Your task to perform on an android device: Add corsair k70 to the cart on walmart.com Image 0: 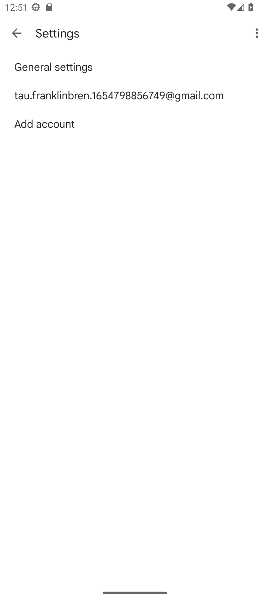
Step 0: press home button
Your task to perform on an android device: Add corsair k70 to the cart on walmart.com Image 1: 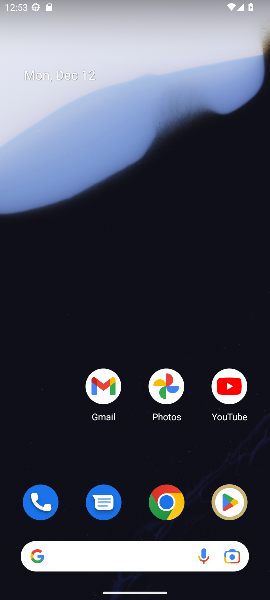
Step 1: click (181, 519)
Your task to perform on an android device: Add corsair k70 to the cart on walmart.com Image 2: 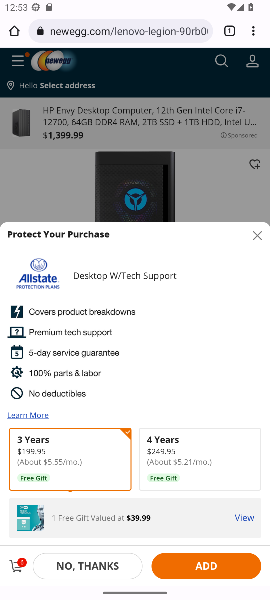
Step 2: click (98, 29)
Your task to perform on an android device: Add corsair k70 to the cart on walmart.com Image 3: 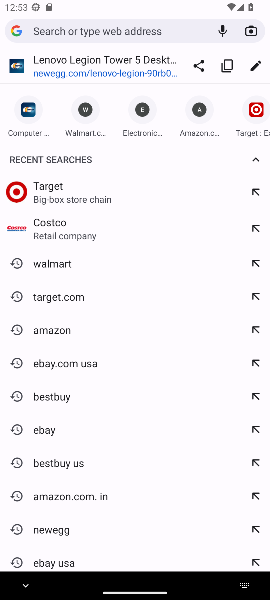
Step 3: type "walmart"
Your task to perform on an android device: Add corsair k70 to the cart on walmart.com Image 4: 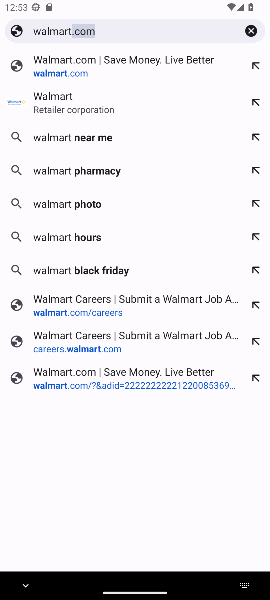
Step 4: click (70, 78)
Your task to perform on an android device: Add corsair k70 to the cart on walmart.com Image 5: 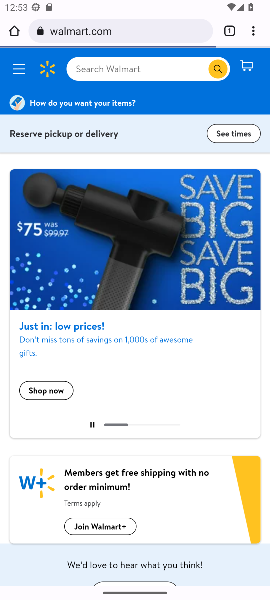
Step 5: click (123, 69)
Your task to perform on an android device: Add corsair k70 to the cart on walmart.com Image 6: 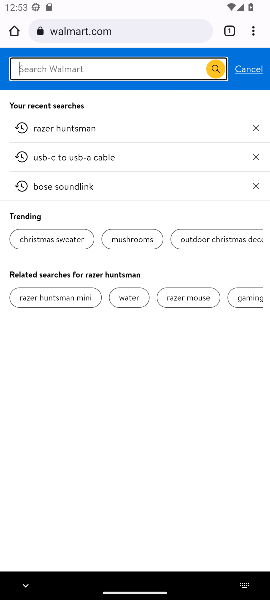
Step 6: type "corsair k70"
Your task to perform on an android device: Add corsair k70 to the cart on walmart.com Image 7: 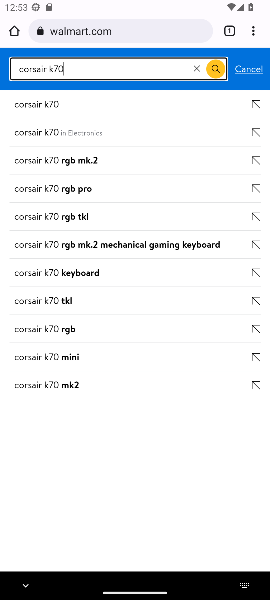
Step 7: click (64, 111)
Your task to perform on an android device: Add corsair k70 to the cart on walmart.com Image 8: 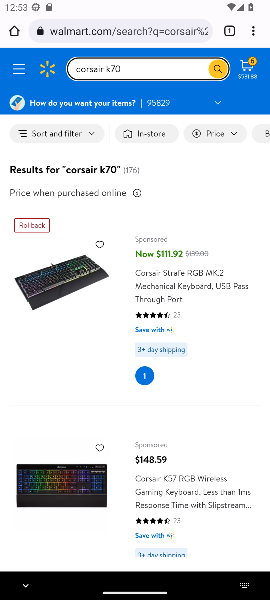
Step 8: click (150, 286)
Your task to perform on an android device: Add corsair k70 to the cart on walmart.com Image 9: 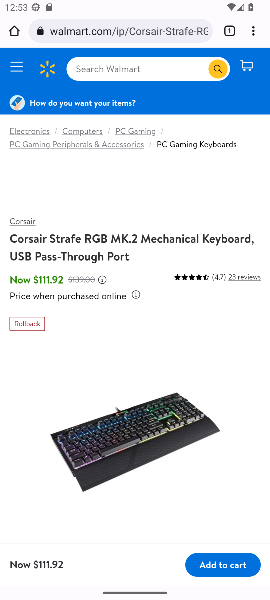
Step 9: click (214, 573)
Your task to perform on an android device: Add corsair k70 to the cart on walmart.com Image 10: 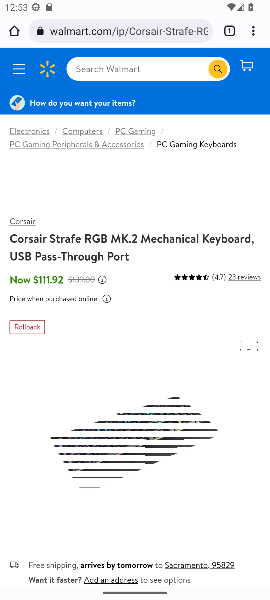
Step 10: task complete